Your task to perform on an android device: check data usage Image 0: 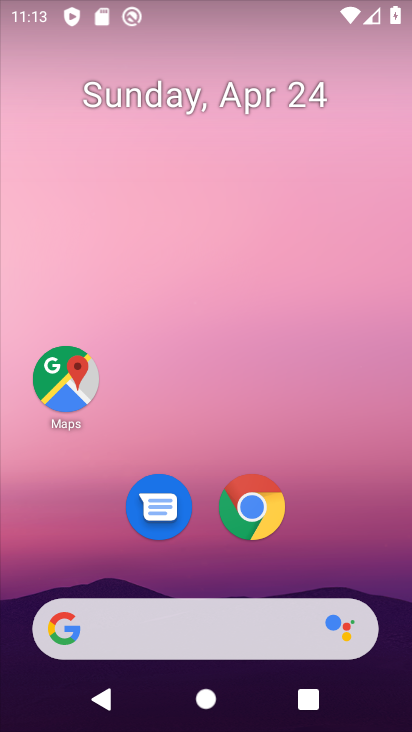
Step 0: drag from (336, 523) to (215, 5)
Your task to perform on an android device: check data usage Image 1: 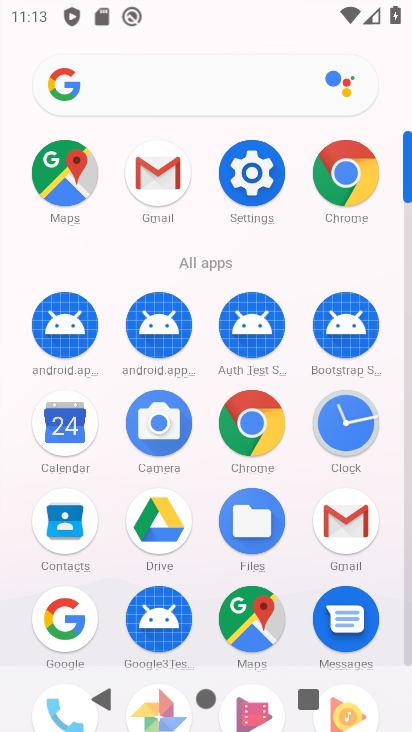
Step 1: drag from (0, 535) to (0, 178)
Your task to perform on an android device: check data usage Image 2: 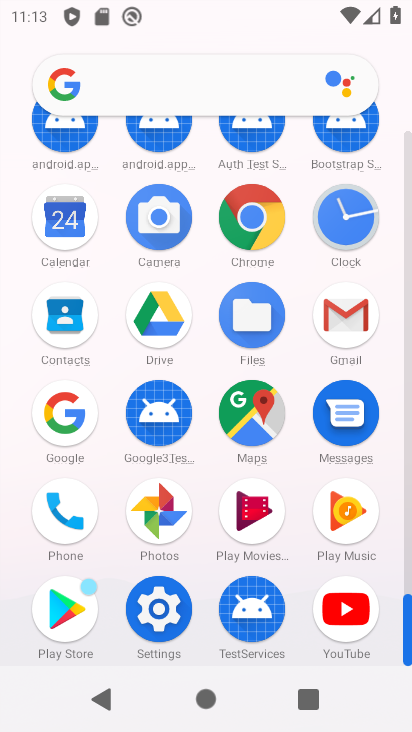
Step 2: click (158, 605)
Your task to perform on an android device: check data usage Image 3: 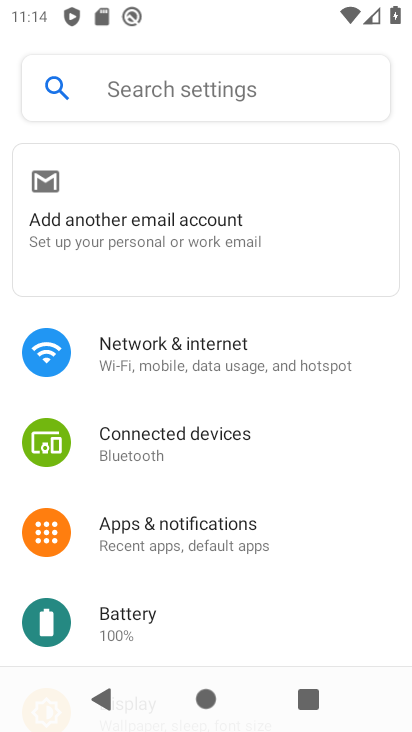
Step 3: click (170, 363)
Your task to perform on an android device: check data usage Image 4: 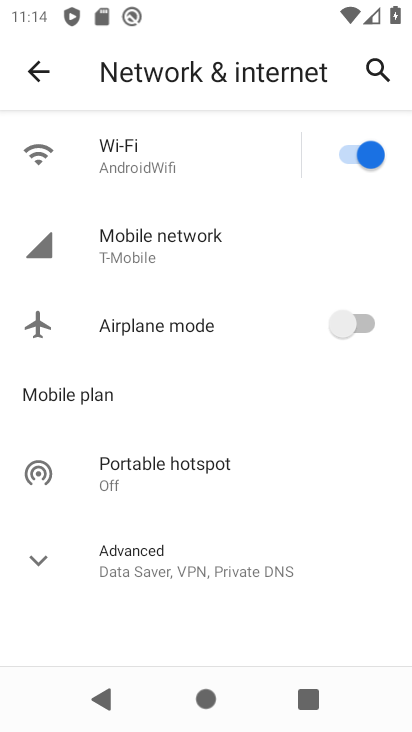
Step 4: click (43, 549)
Your task to perform on an android device: check data usage Image 5: 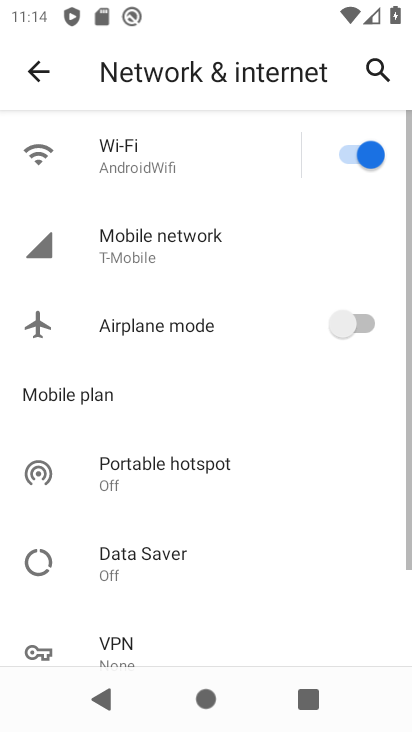
Step 5: drag from (171, 580) to (179, 256)
Your task to perform on an android device: check data usage Image 6: 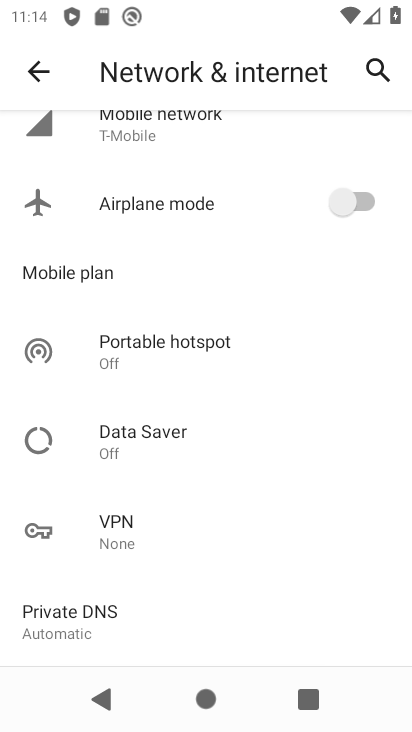
Step 6: drag from (186, 554) to (199, 296)
Your task to perform on an android device: check data usage Image 7: 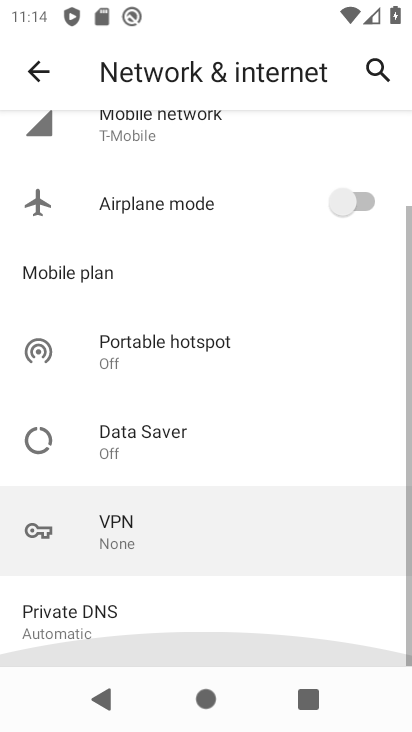
Step 7: drag from (195, 247) to (183, 551)
Your task to perform on an android device: check data usage Image 8: 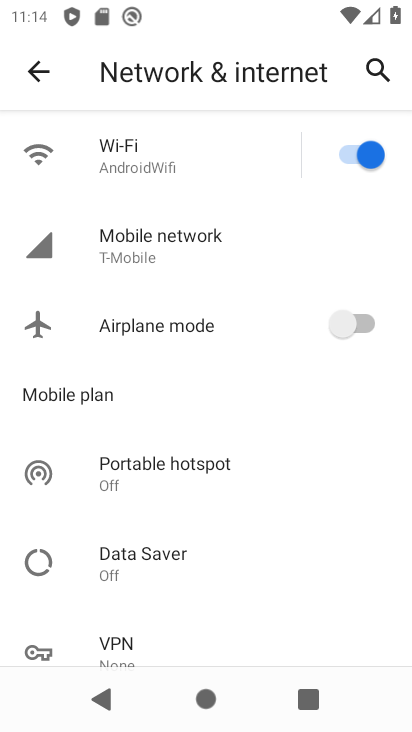
Step 8: click (184, 242)
Your task to perform on an android device: check data usage Image 9: 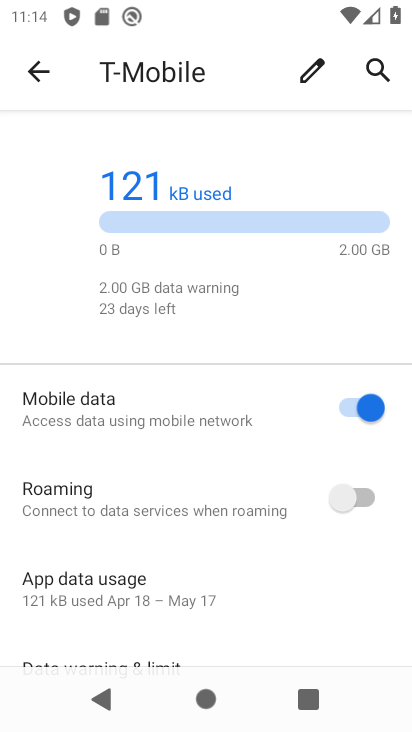
Step 9: task complete